Your task to perform on an android device: change the upload size in google photos Image 0: 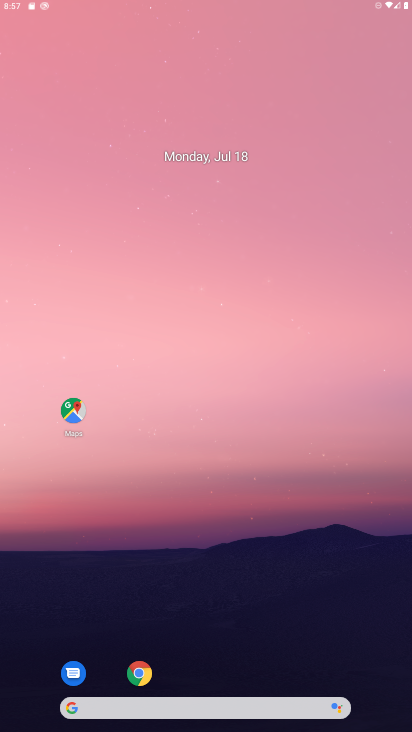
Step 0: press home button
Your task to perform on an android device: change the upload size in google photos Image 1: 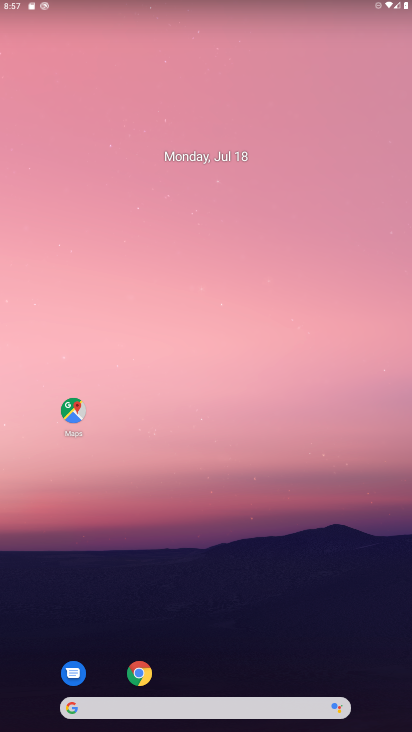
Step 1: drag from (271, 660) to (276, 43)
Your task to perform on an android device: change the upload size in google photos Image 2: 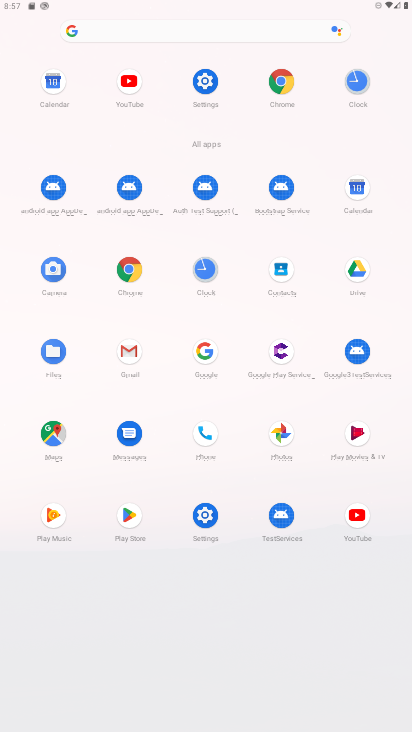
Step 2: click (279, 437)
Your task to perform on an android device: change the upload size in google photos Image 3: 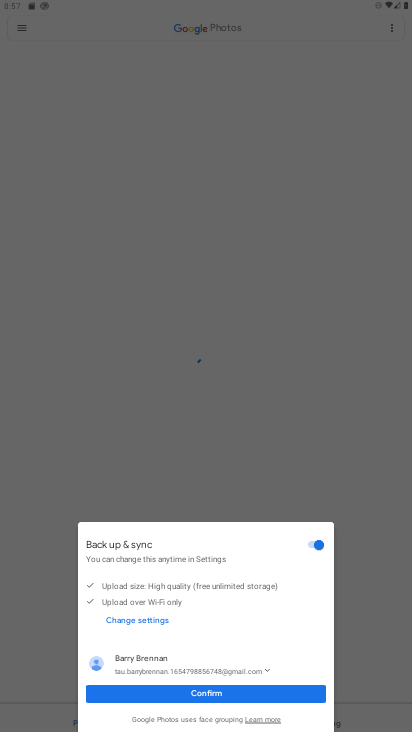
Step 3: click (198, 689)
Your task to perform on an android device: change the upload size in google photos Image 4: 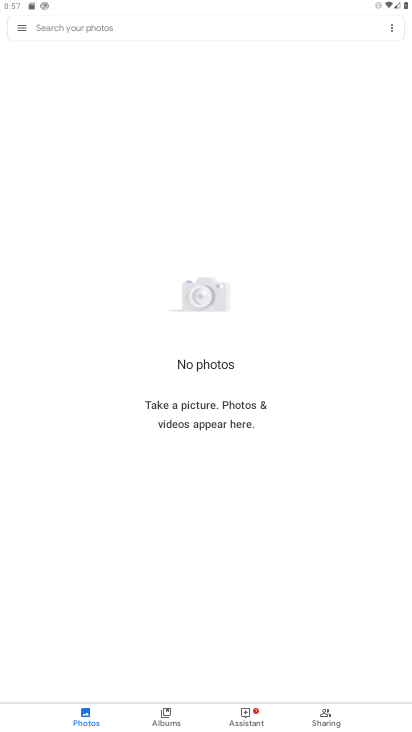
Step 4: click (21, 25)
Your task to perform on an android device: change the upload size in google photos Image 5: 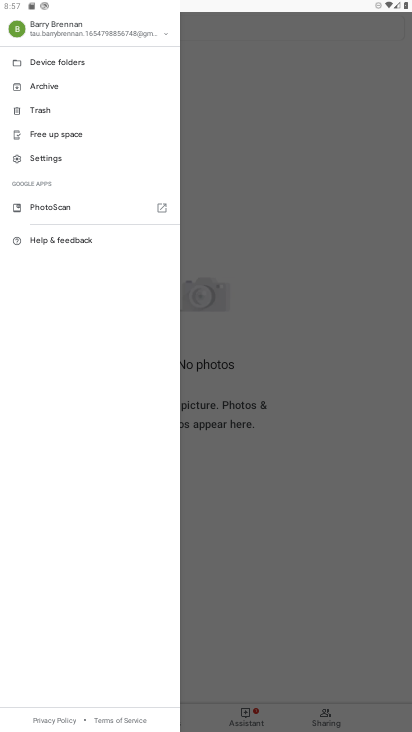
Step 5: click (41, 159)
Your task to perform on an android device: change the upload size in google photos Image 6: 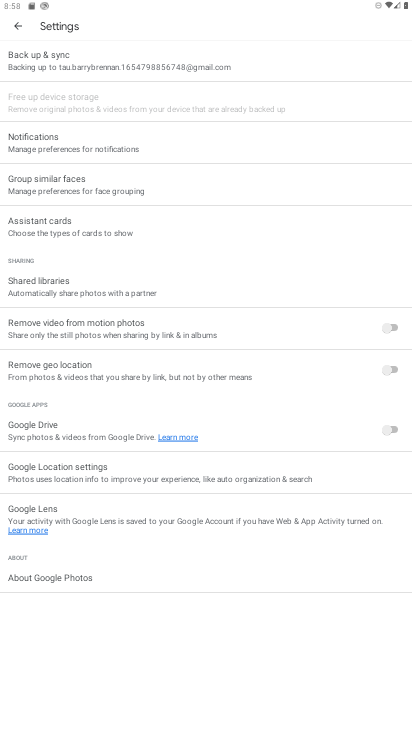
Step 6: click (49, 59)
Your task to perform on an android device: change the upload size in google photos Image 7: 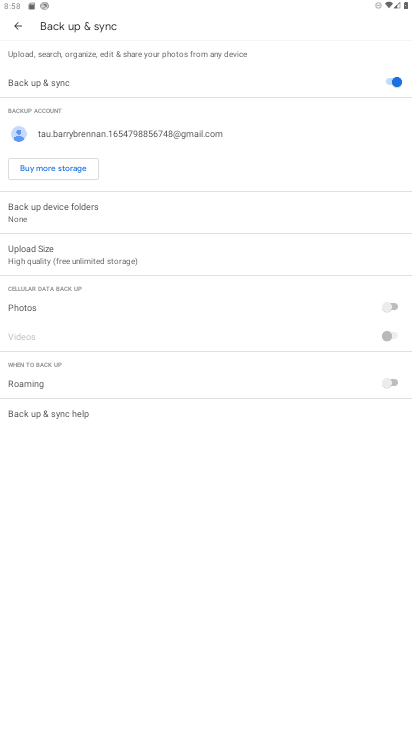
Step 7: click (50, 262)
Your task to perform on an android device: change the upload size in google photos Image 8: 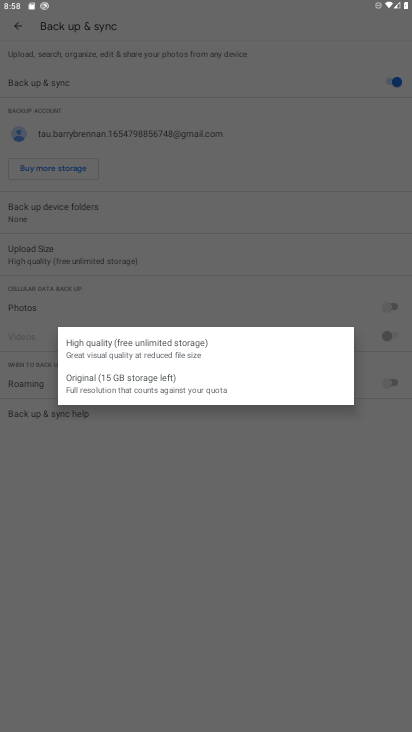
Step 8: click (115, 386)
Your task to perform on an android device: change the upload size in google photos Image 9: 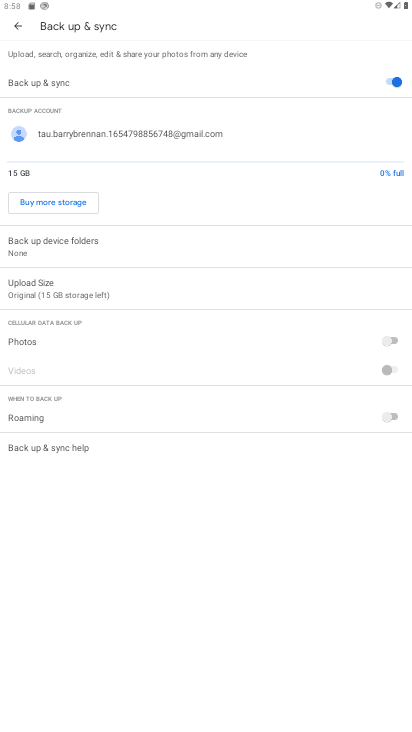
Step 9: task complete